Your task to perform on an android device: turn pop-ups off in chrome Image 0: 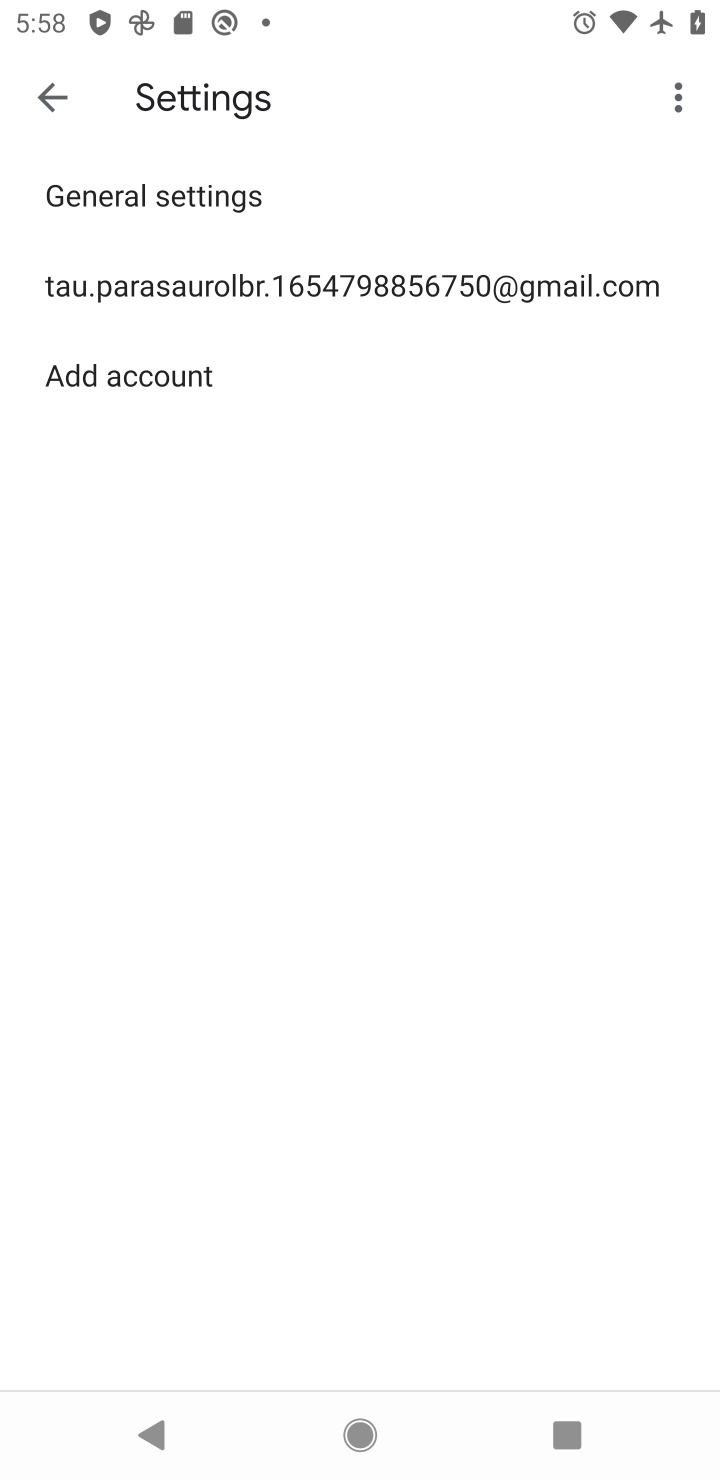
Step 0: press home button
Your task to perform on an android device: turn pop-ups off in chrome Image 1: 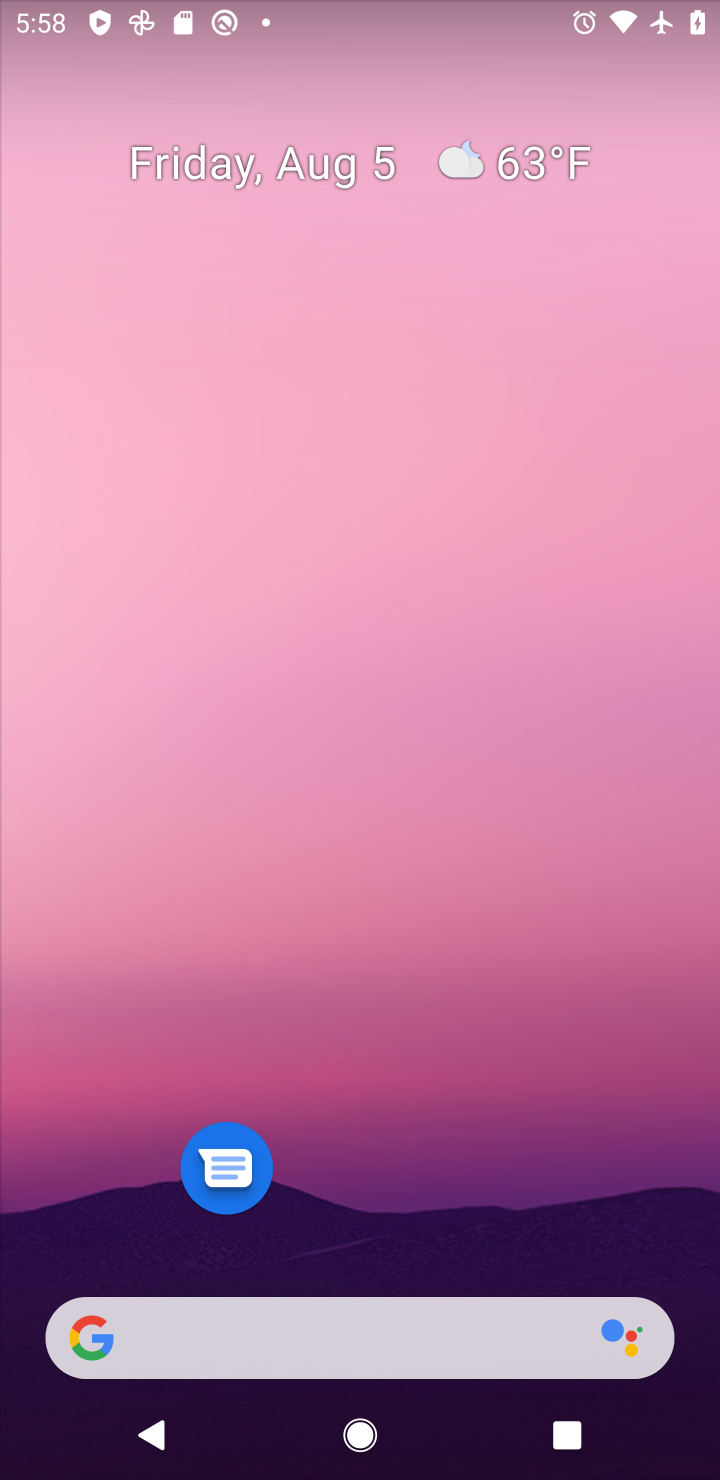
Step 1: drag from (452, 1254) to (340, 17)
Your task to perform on an android device: turn pop-ups off in chrome Image 2: 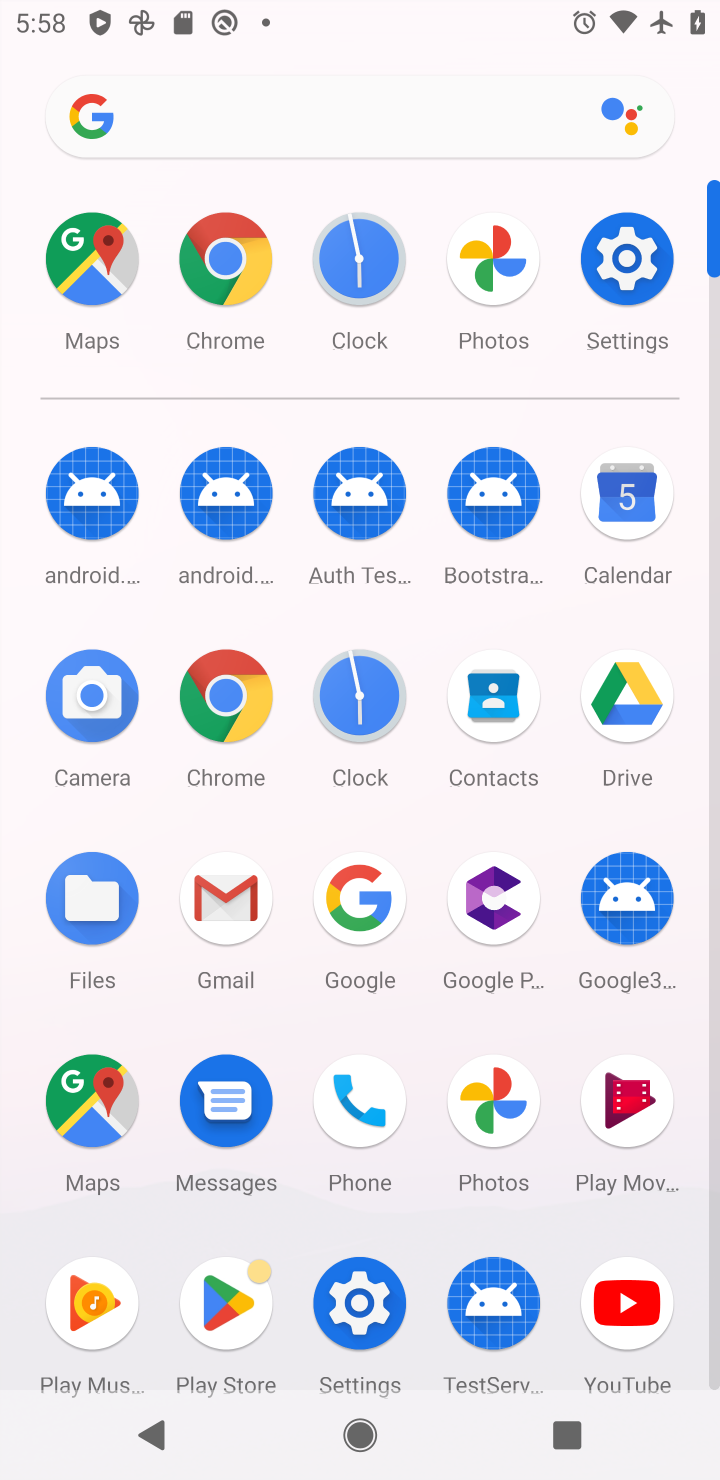
Step 2: click (248, 254)
Your task to perform on an android device: turn pop-ups off in chrome Image 3: 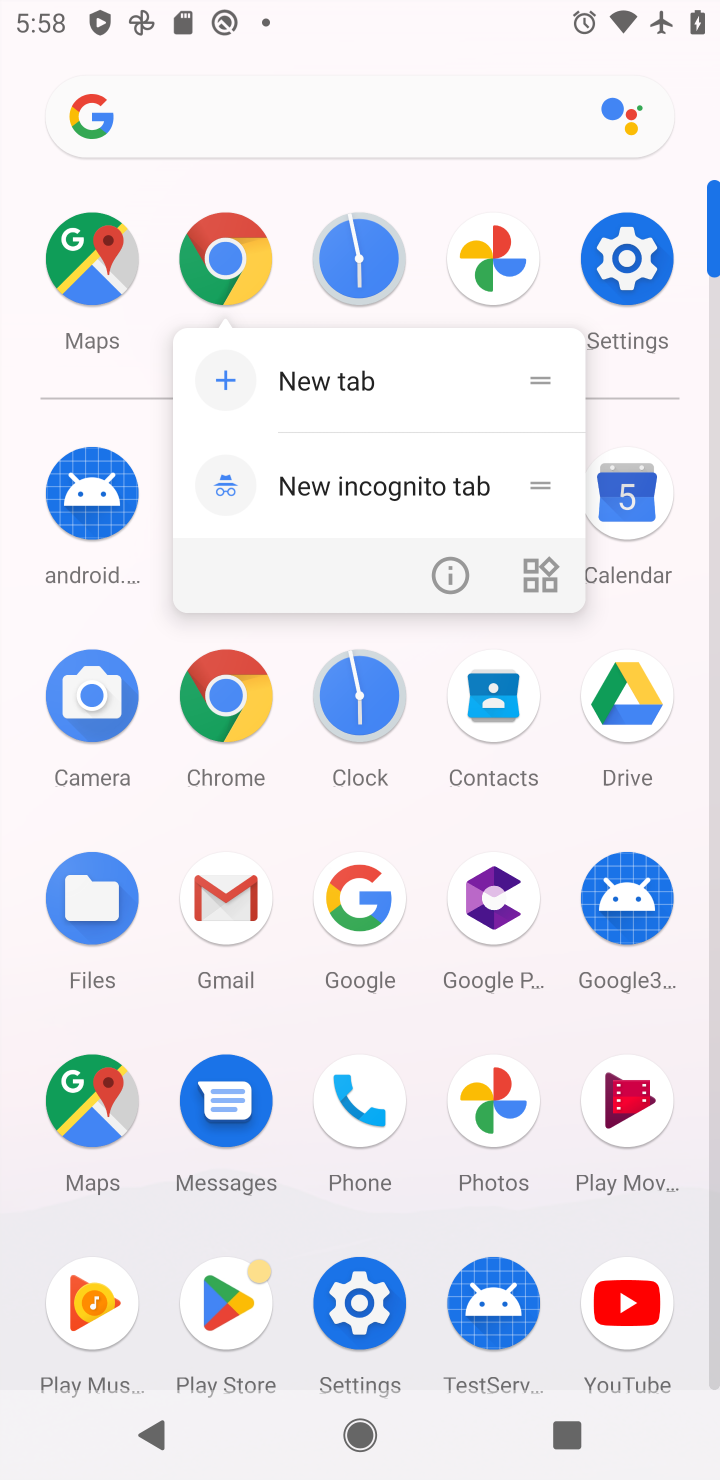
Step 3: click (170, 170)
Your task to perform on an android device: turn pop-ups off in chrome Image 4: 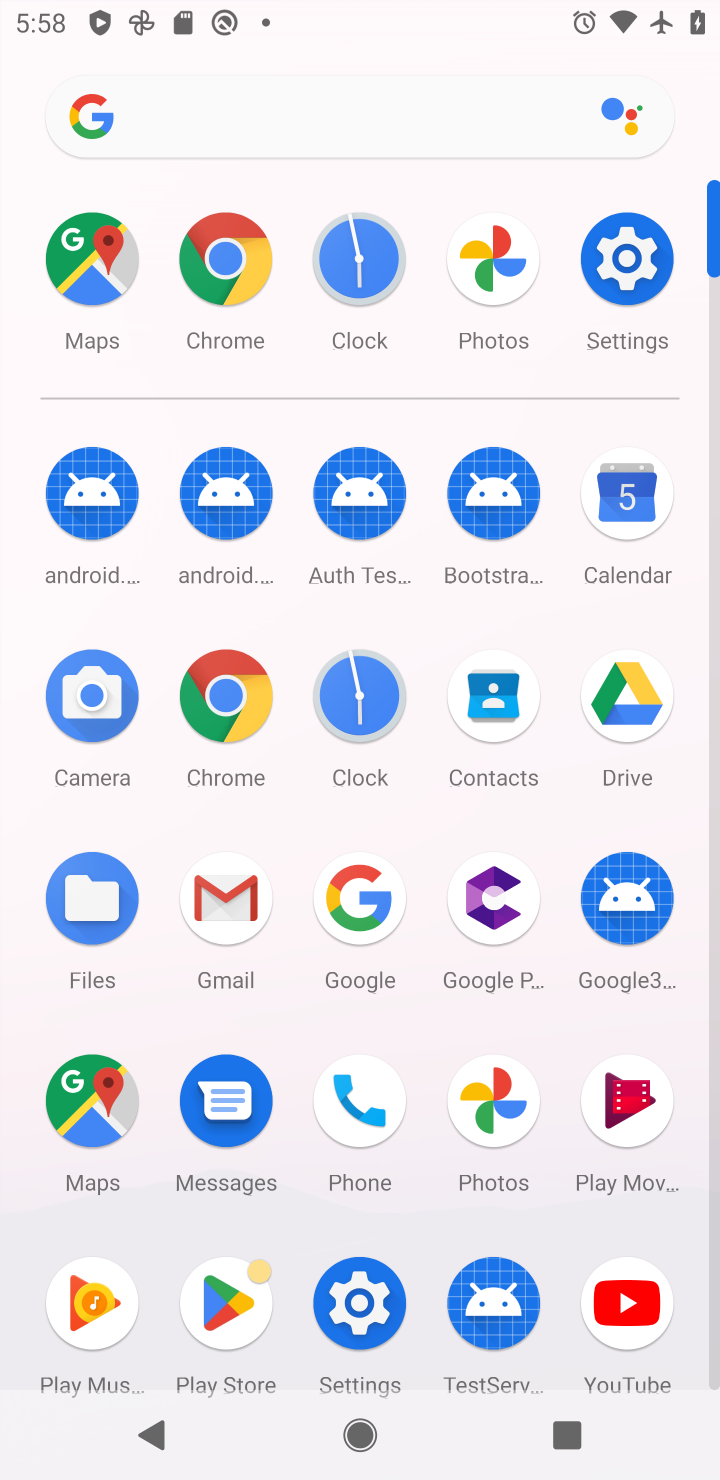
Step 4: click (217, 247)
Your task to perform on an android device: turn pop-ups off in chrome Image 5: 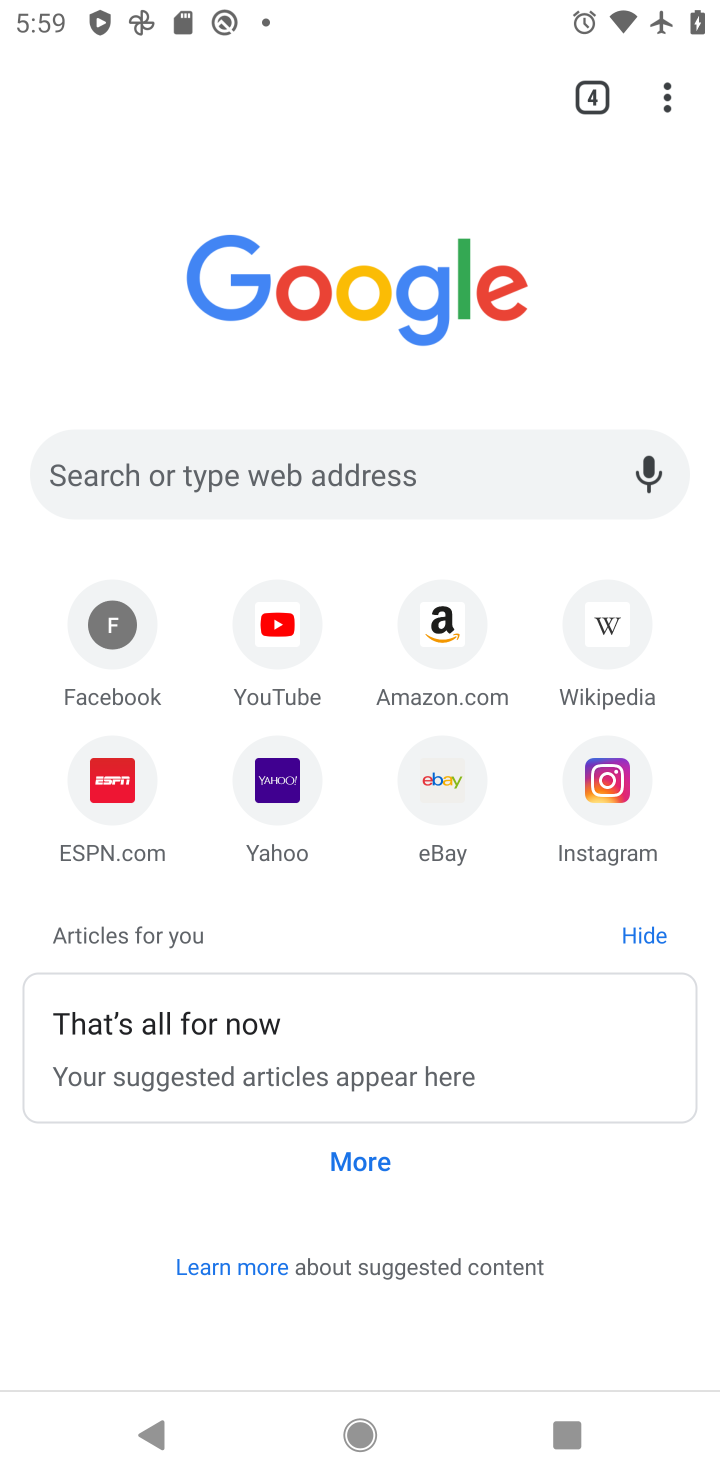
Step 5: drag from (664, 85) to (311, 820)
Your task to perform on an android device: turn pop-ups off in chrome Image 6: 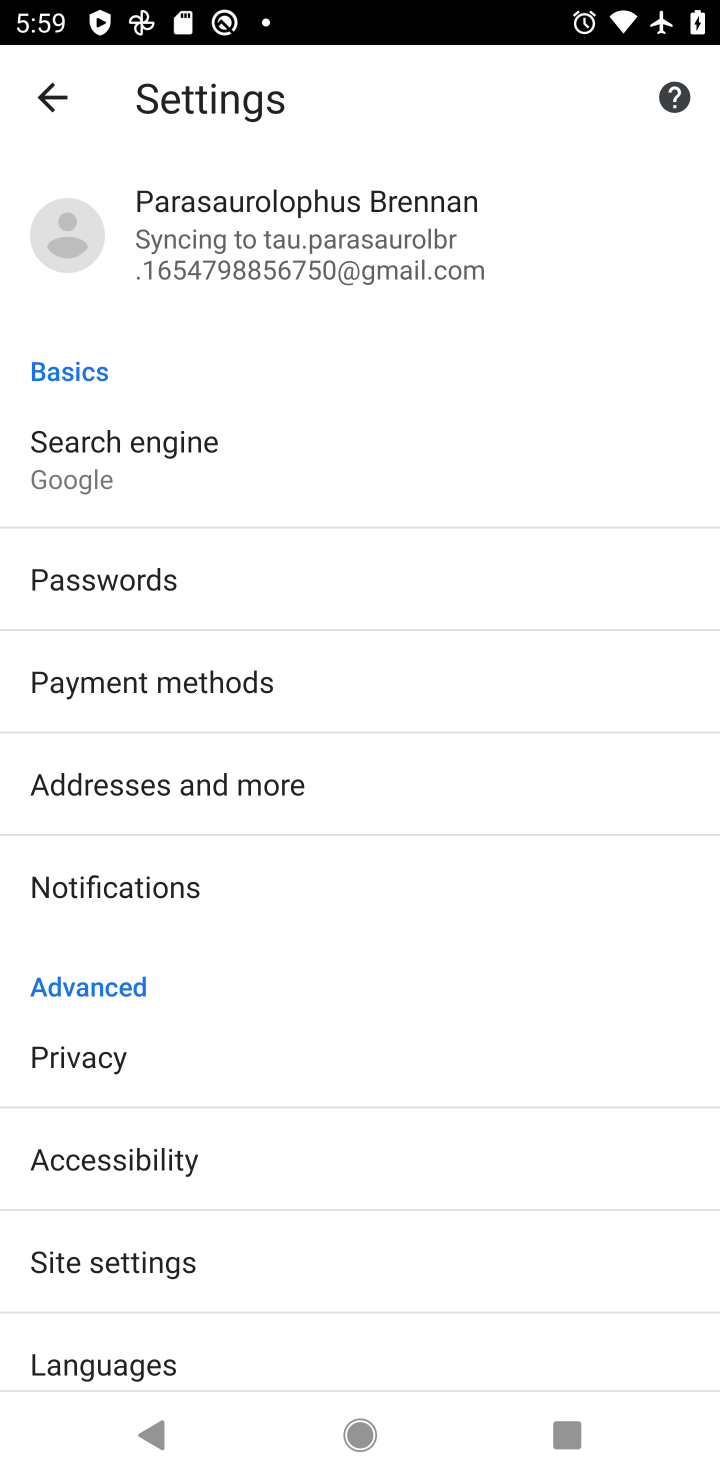
Step 6: click (89, 1274)
Your task to perform on an android device: turn pop-ups off in chrome Image 7: 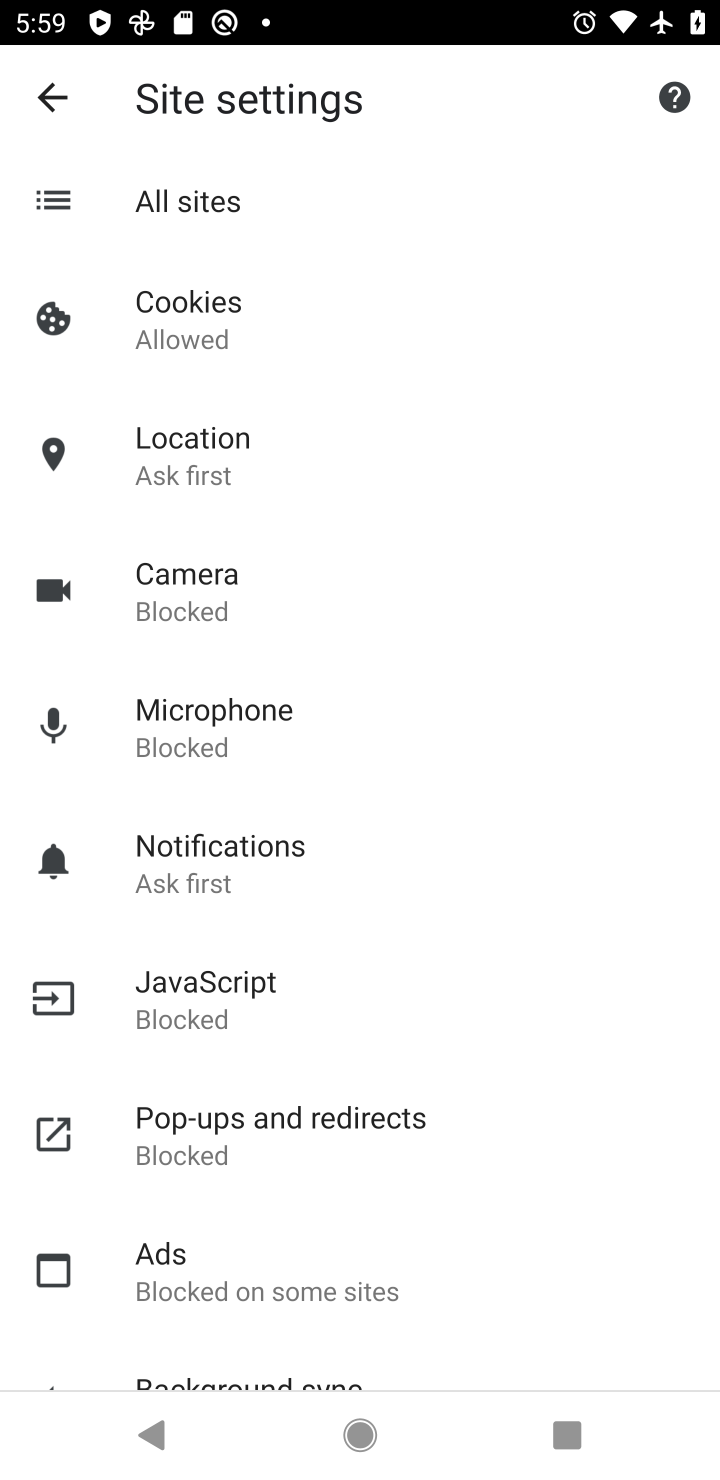
Step 7: click (258, 1136)
Your task to perform on an android device: turn pop-ups off in chrome Image 8: 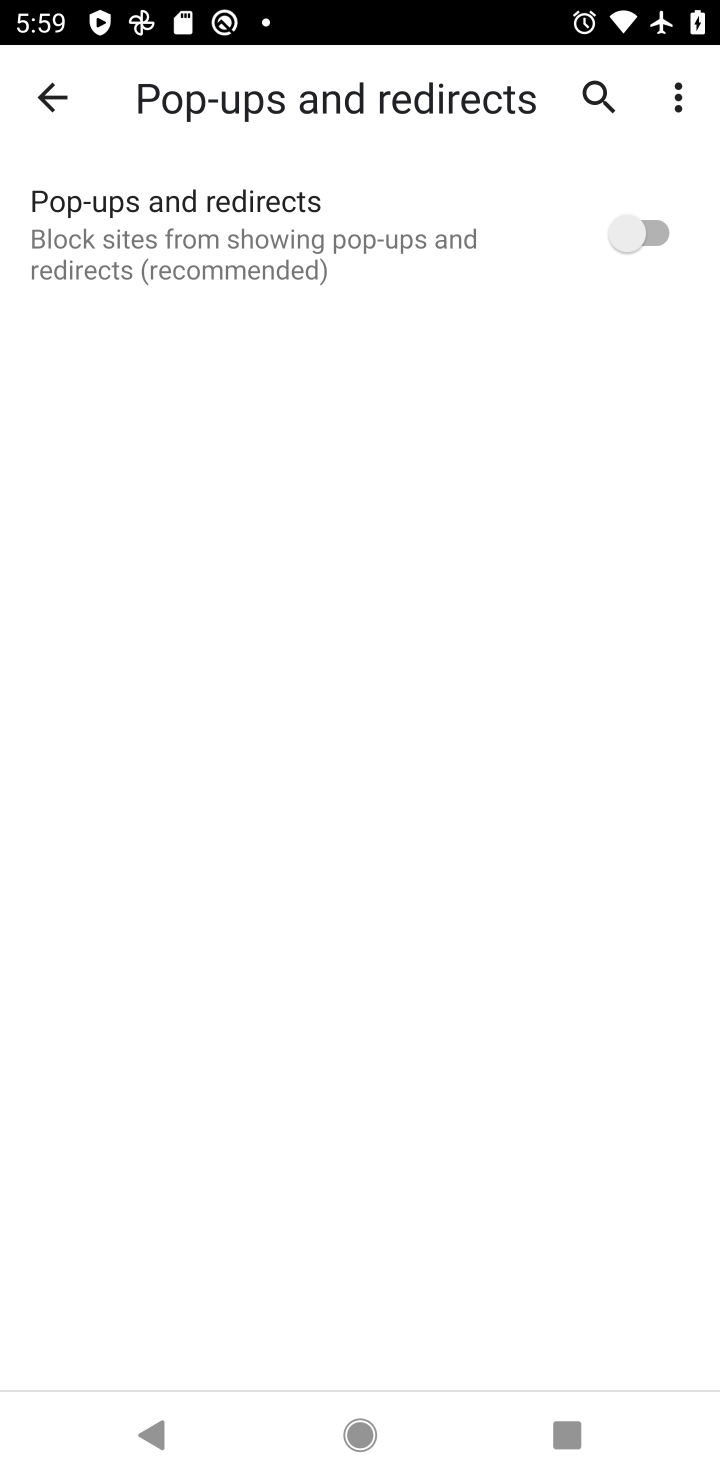
Step 8: task complete